Your task to perform on an android device: Check the news Image 0: 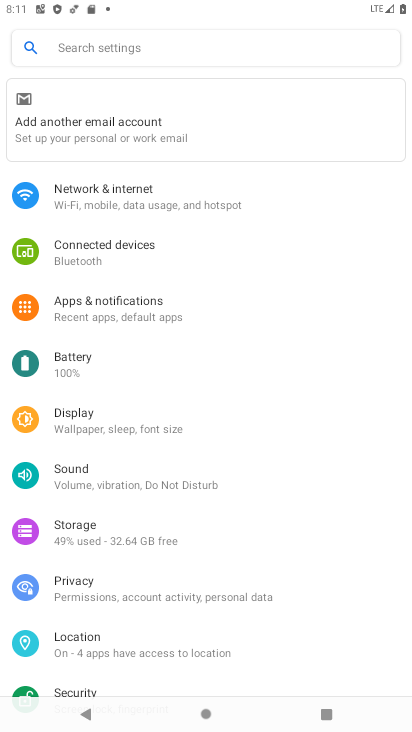
Step 0: press home button
Your task to perform on an android device: Check the news Image 1: 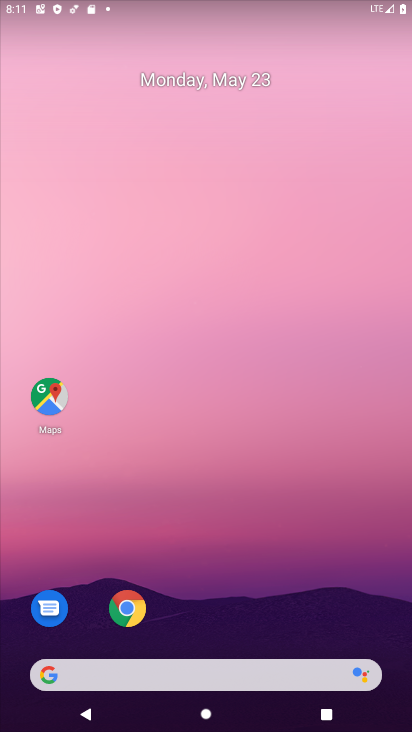
Step 1: drag from (186, 664) to (195, 143)
Your task to perform on an android device: Check the news Image 2: 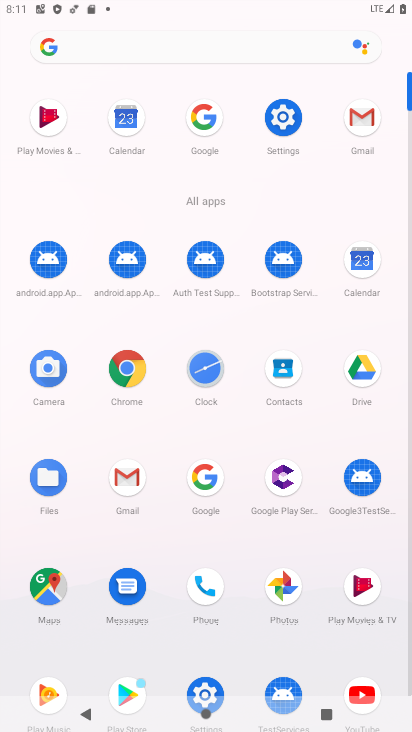
Step 2: click (217, 482)
Your task to perform on an android device: Check the news Image 3: 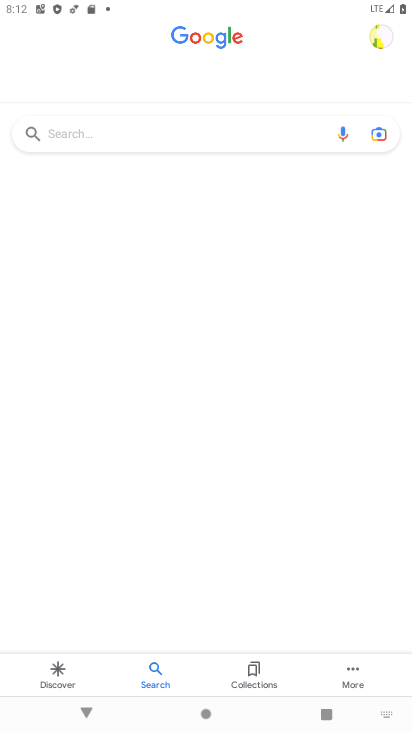
Step 3: task complete